Your task to perform on an android device: Go to Yahoo.com Image 0: 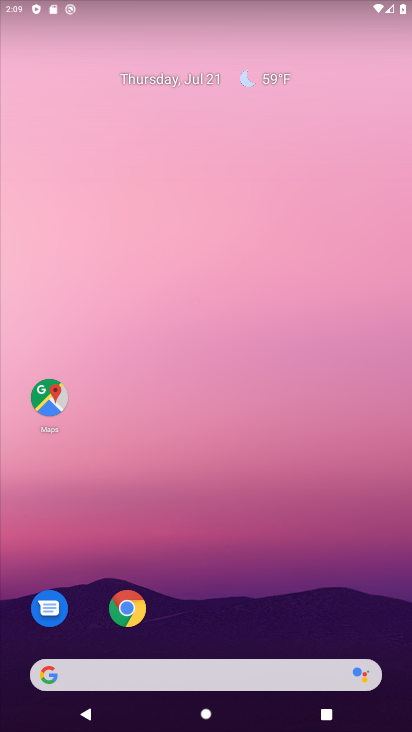
Step 0: click (124, 604)
Your task to perform on an android device: Go to Yahoo.com Image 1: 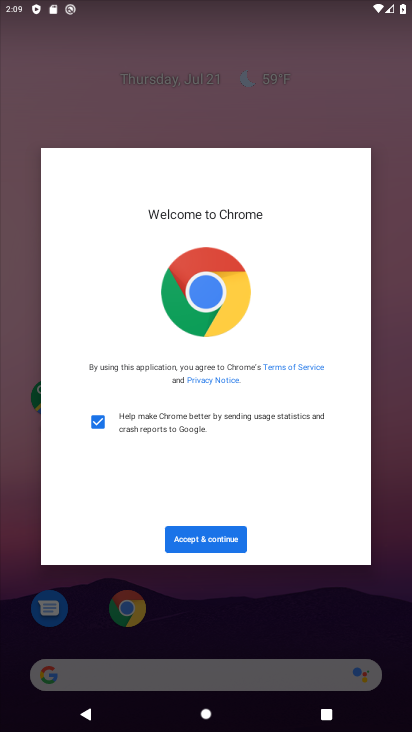
Step 1: click (212, 535)
Your task to perform on an android device: Go to Yahoo.com Image 2: 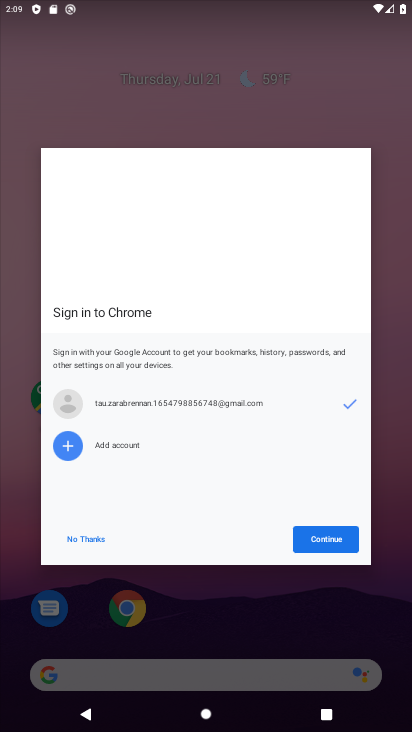
Step 2: click (308, 540)
Your task to perform on an android device: Go to Yahoo.com Image 3: 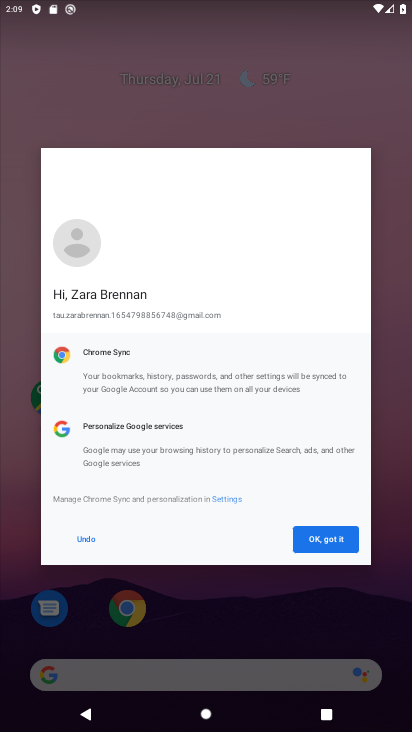
Step 3: click (308, 540)
Your task to perform on an android device: Go to Yahoo.com Image 4: 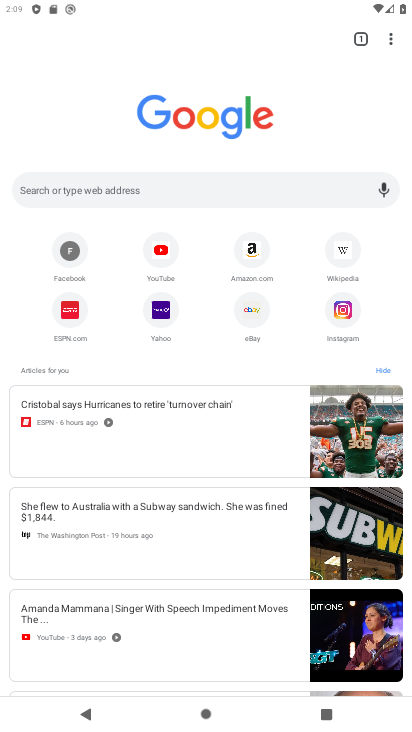
Step 4: click (164, 304)
Your task to perform on an android device: Go to Yahoo.com Image 5: 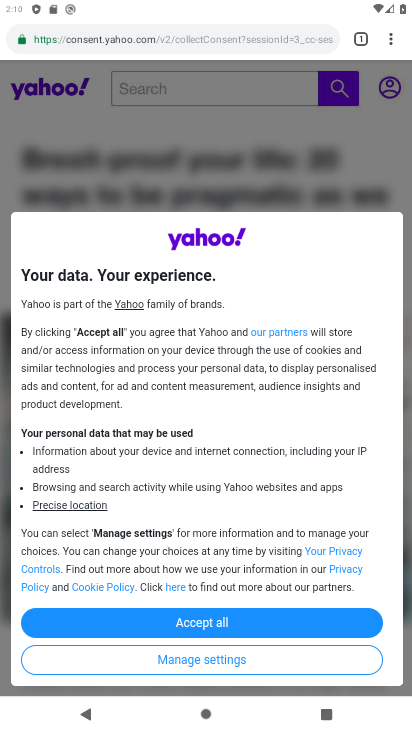
Step 5: click (164, 304)
Your task to perform on an android device: Go to Yahoo.com Image 6: 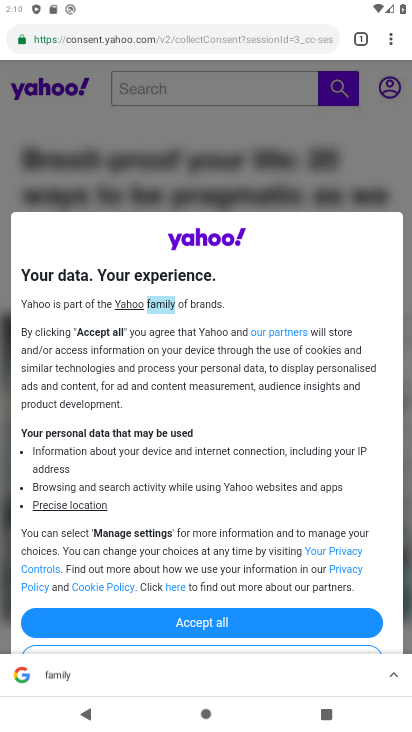
Step 6: task complete